Your task to perform on an android device: turn on priority inbox in the gmail app Image 0: 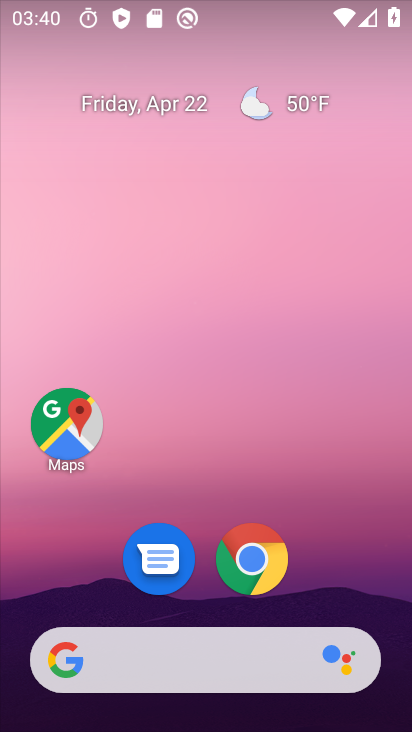
Step 0: drag from (195, 571) to (317, 65)
Your task to perform on an android device: turn on priority inbox in the gmail app Image 1: 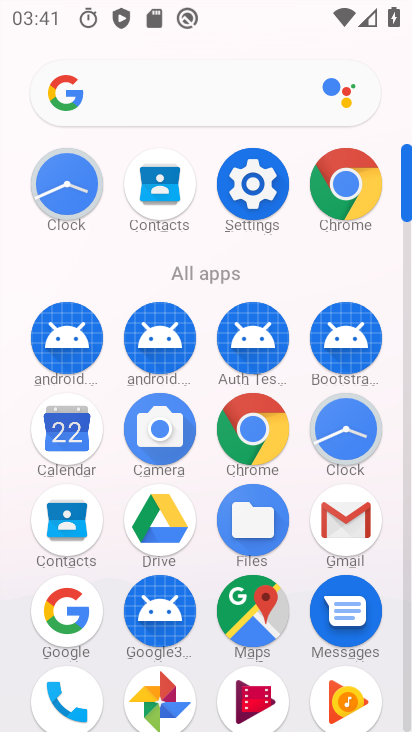
Step 1: click (346, 522)
Your task to perform on an android device: turn on priority inbox in the gmail app Image 2: 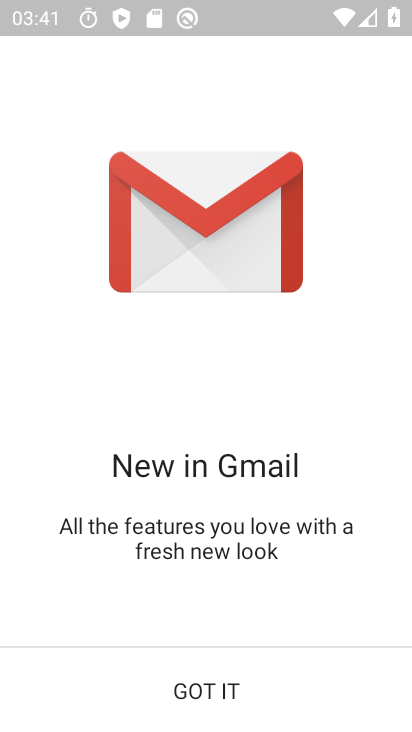
Step 2: click (259, 685)
Your task to perform on an android device: turn on priority inbox in the gmail app Image 3: 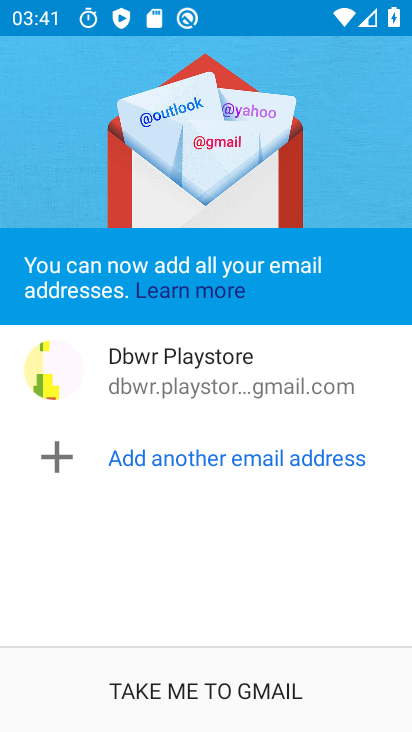
Step 3: click (259, 688)
Your task to perform on an android device: turn on priority inbox in the gmail app Image 4: 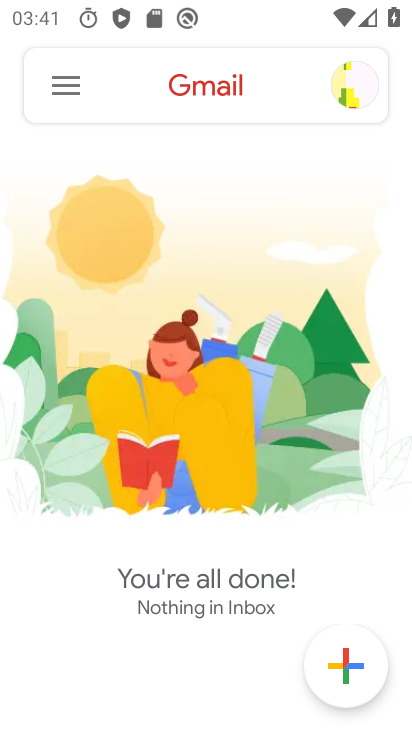
Step 4: click (80, 89)
Your task to perform on an android device: turn on priority inbox in the gmail app Image 5: 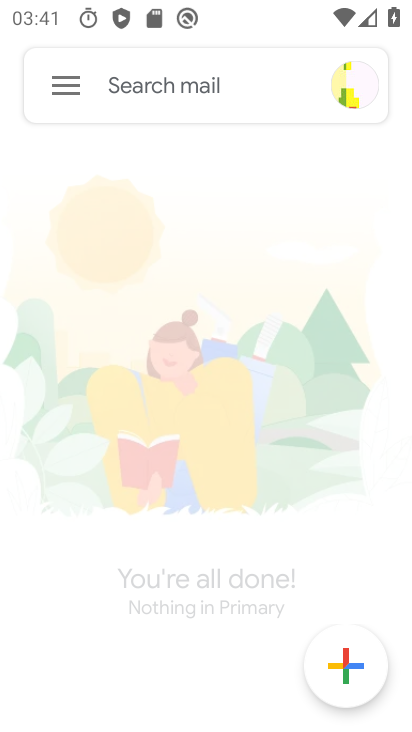
Step 5: drag from (180, 538) to (204, 413)
Your task to perform on an android device: turn on priority inbox in the gmail app Image 6: 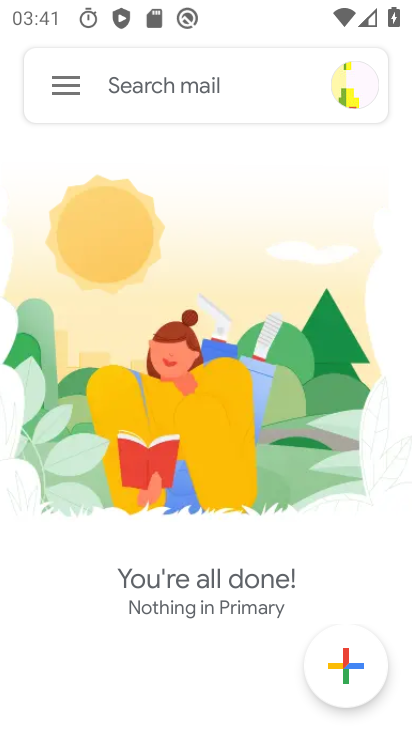
Step 6: click (78, 80)
Your task to perform on an android device: turn on priority inbox in the gmail app Image 7: 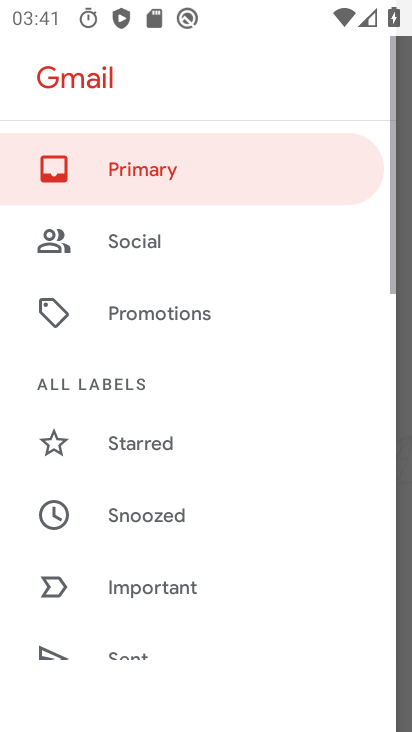
Step 7: drag from (162, 608) to (291, 191)
Your task to perform on an android device: turn on priority inbox in the gmail app Image 8: 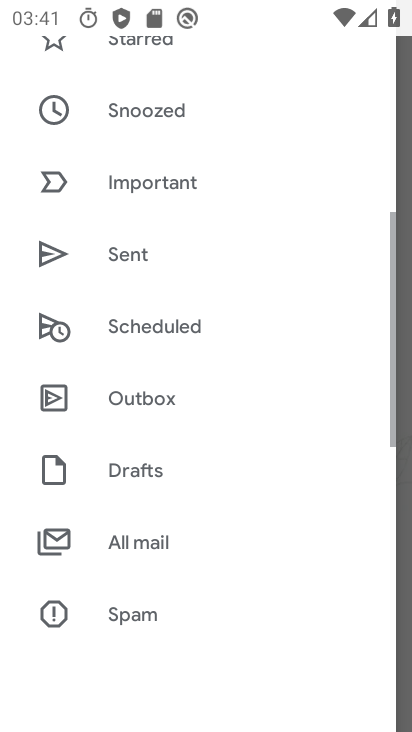
Step 8: drag from (172, 658) to (297, 190)
Your task to perform on an android device: turn on priority inbox in the gmail app Image 9: 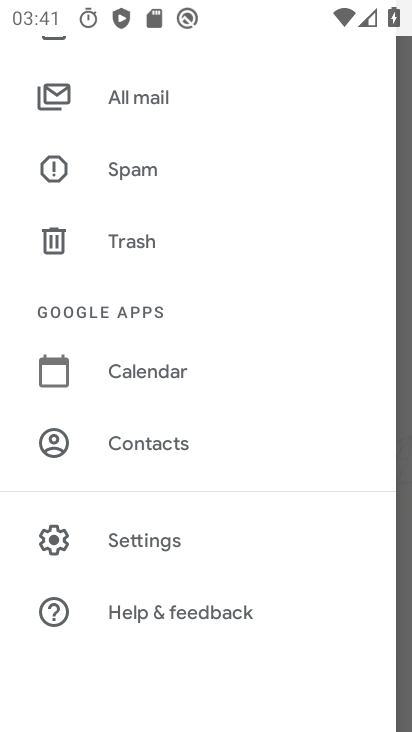
Step 9: click (201, 543)
Your task to perform on an android device: turn on priority inbox in the gmail app Image 10: 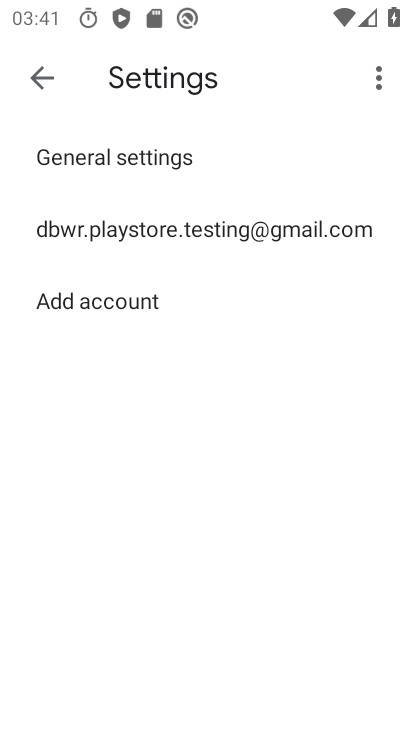
Step 10: click (251, 230)
Your task to perform on an android device: turn on priority inbox in the gmail app Image 11: 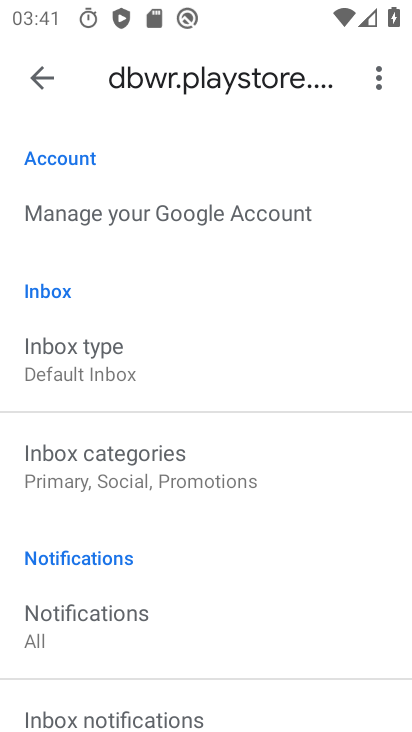
Step 11: click (162, 381)
Your task to perform on an android device: turn on priority inbox in the gmail app Image 12: 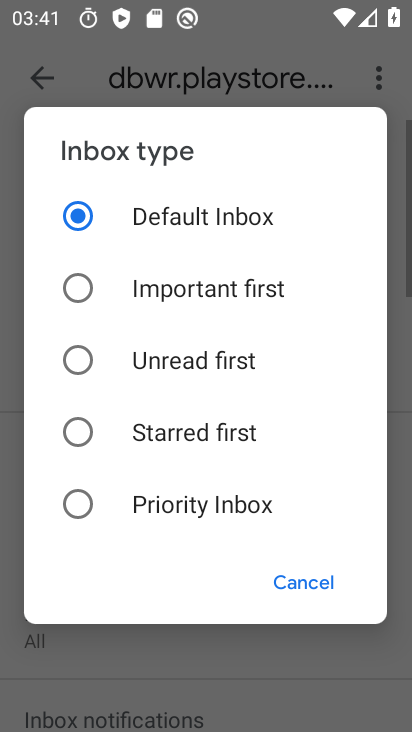
Step 12: click (180, 499)
Your task to perform on an android device: turn on priority inbox in the gmail app Image 13: 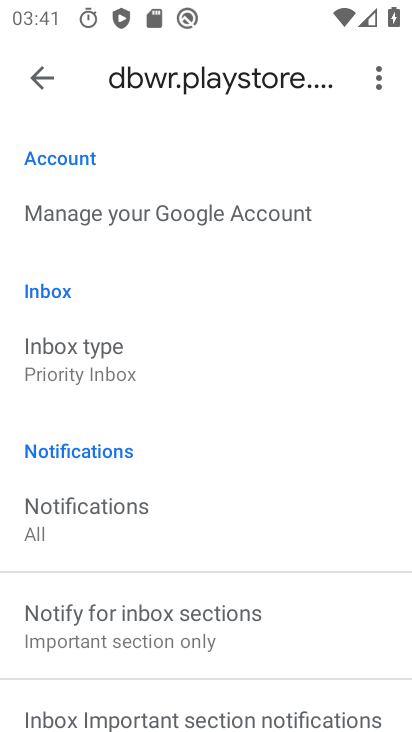
Step 13: task complete